Your task to perform on an android device: allow cookies in the chrome app Image 0: 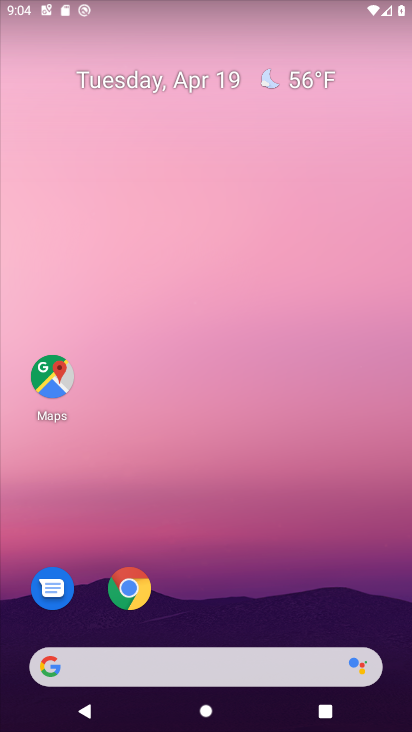
Step 0: click (128, 581)
Your task to perform on an android device: allow cookies in the chrome app Image 1: 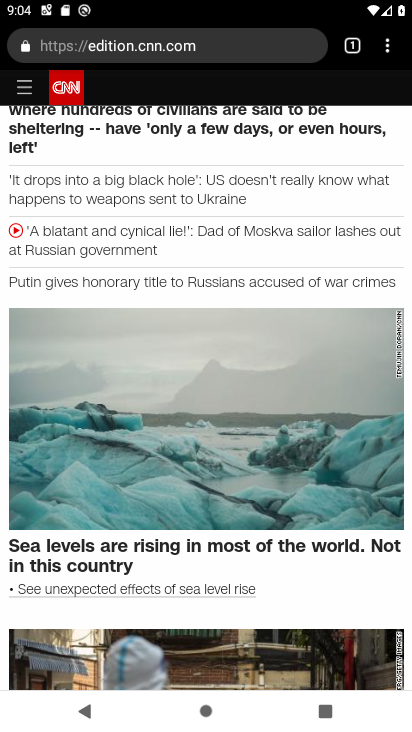
Step 1: click (387, 42)
Your task to perform on an android device: allow cookies in the chrome app Image 2: 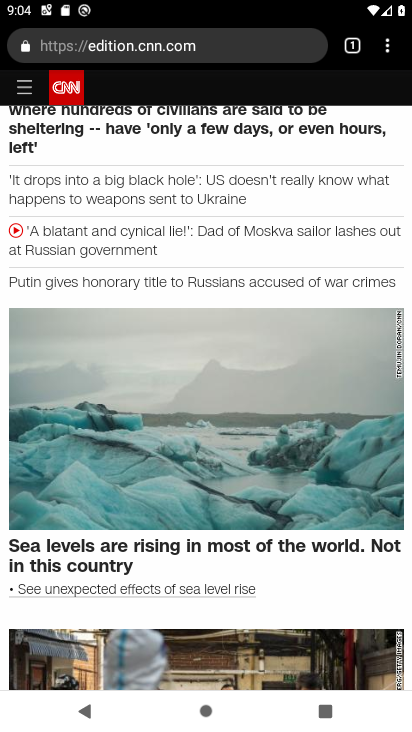
Step 2: click (390, 48)
Your task to perform on an android device: allow cookies in the chrome app Image 3: 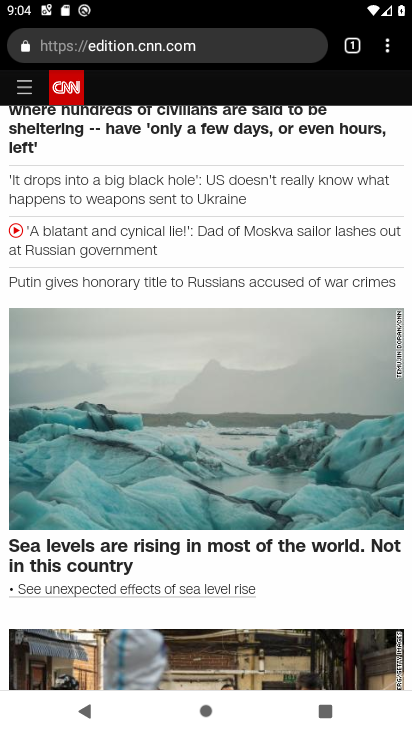
Step 3: click (390, 48)
Your task to perform on an android device: allow cookies in the chrome app Image 4: 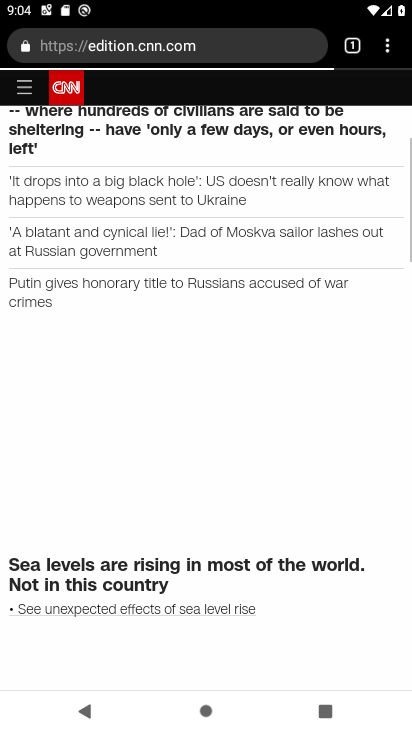
Step 4: click (387, 47)
Your task to perform on an android device: allow cookies in the chrome app Image 5: 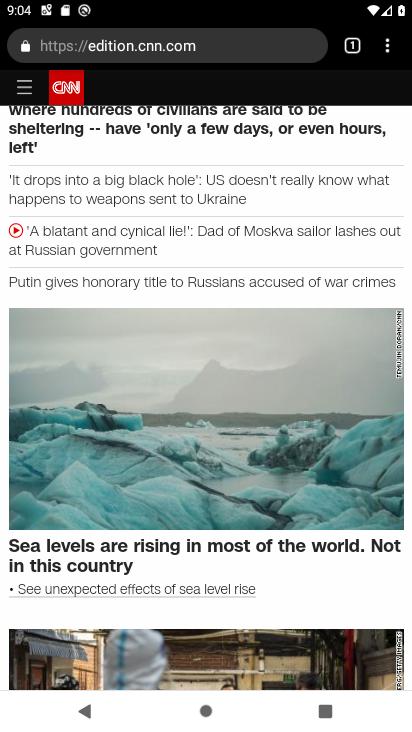
Step 5: click (386, 43)
Your task to perform on an android device: allow cookies in the chrome app Image 6: 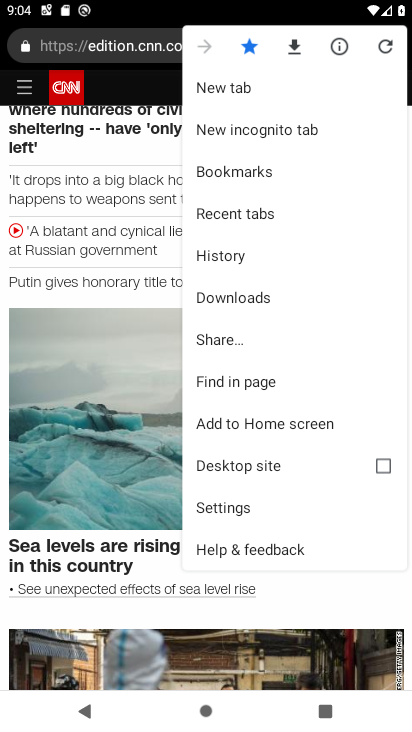
Step 6: click (253, 501)
Your task to perform on an android device: allow cookies in the chrome app Image 7: 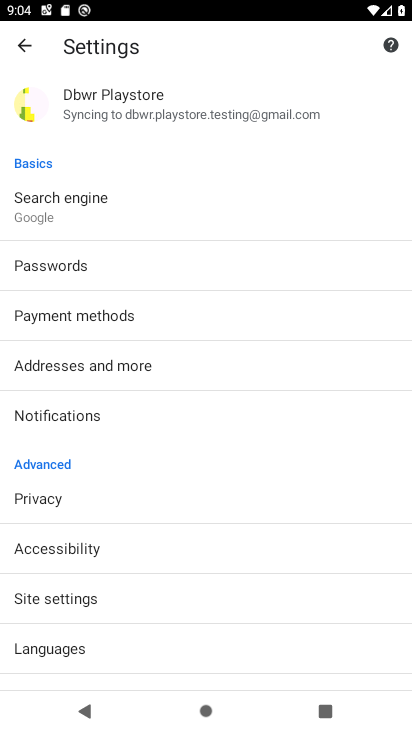
Step 7: click (105, 599)
Your task to perform on an android device: allow cookies in the chrome app Image 8: 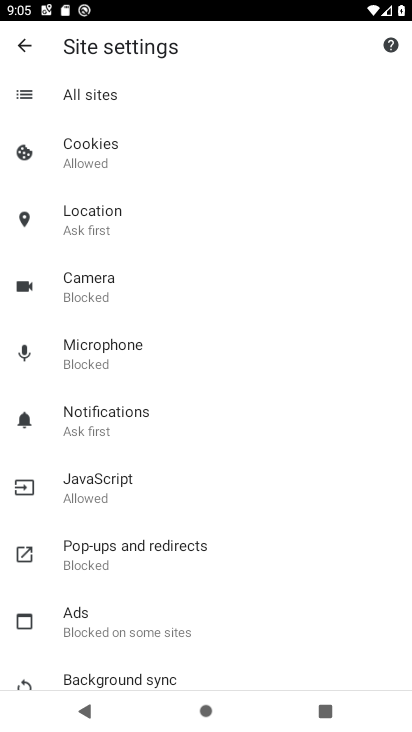
Step 8: click (128, 146)
Your task to perform on an android device: allow cookies in the chrome app Image 9: 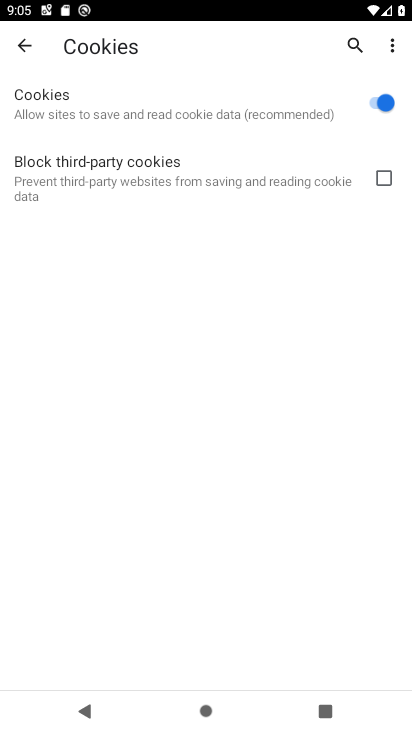
Step 9: task complete